Your task to perform on an android device: remove spam from my inbox in the gmail app Image 0: 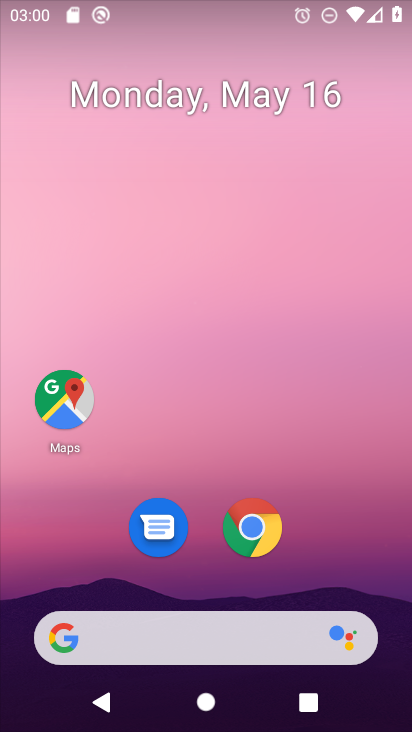
Step 0: drag from (336, 570) to (334, 434)
Your task to perform on an android device: remove spam from my inbox in the gmail app Image 1: 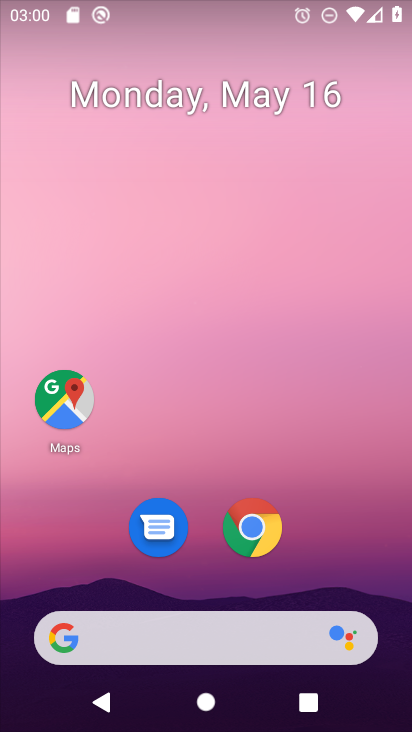
Step 1: drag from (382, 544) to (336, 116)
Your task to perform on an android device: remove spam from my inbox in the gmail app Image 2: 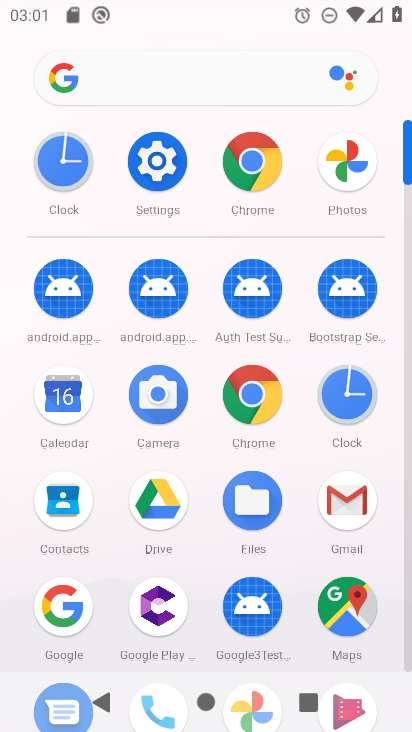
Step 2: click (334, 505)
Your task to perform on an android device: remove spam from my inbox in the gmail app Image 3: 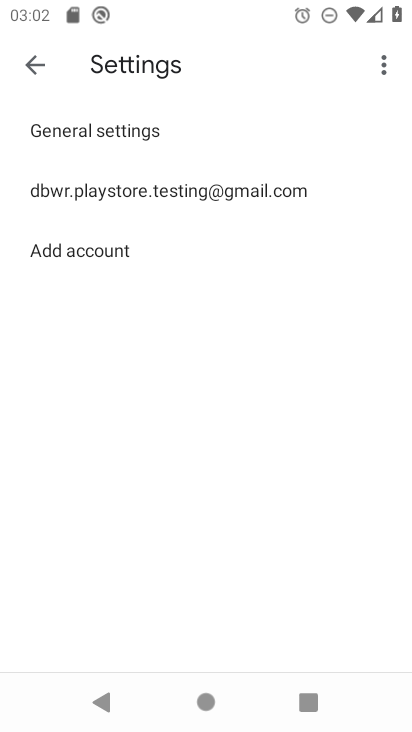
Step 3: click (38, 74)
Your task to perform on an android device: remove spam from my inbox in the gmail app Image 4: 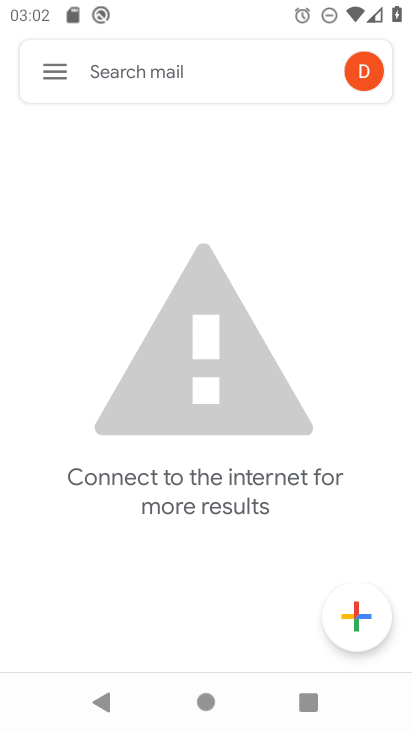
Step 4: click (45, 83)
Your task to perform on an android device: remove spam from my inbox in the gmail app Image 5: 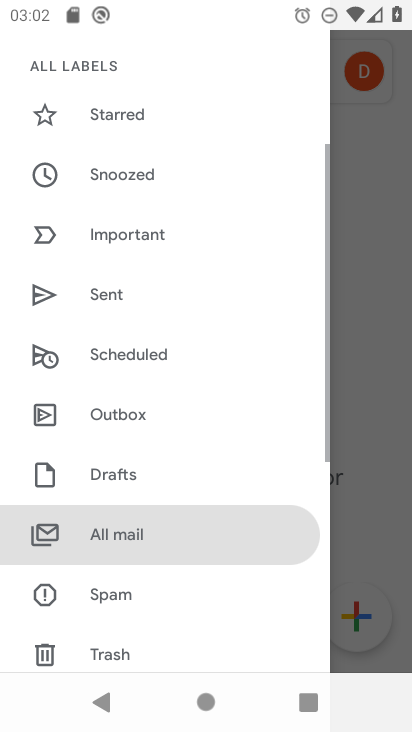
Step 5: click (75, 577)
Your task to perform on an android device: remove spam from my inbox in the gmail app Image 6: 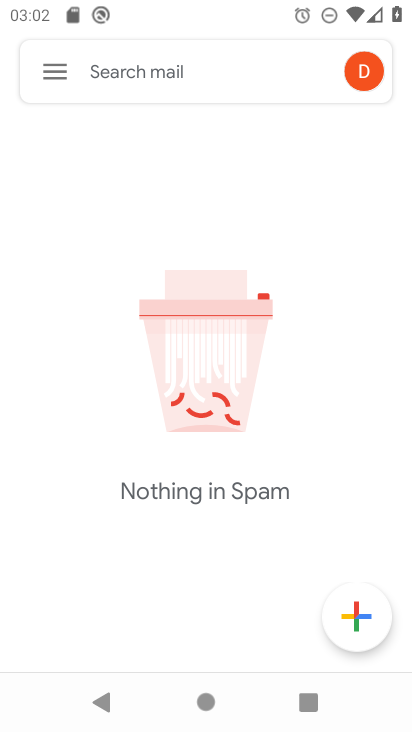
Step 6: task complete